Your task to perform on an android device: toggle location history Image 0: 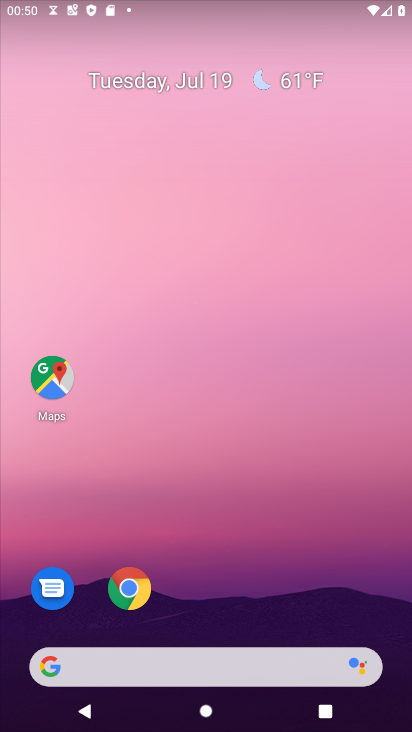
Step 0: press home button
Your task to perform on an android device: toggle location history Image 1: 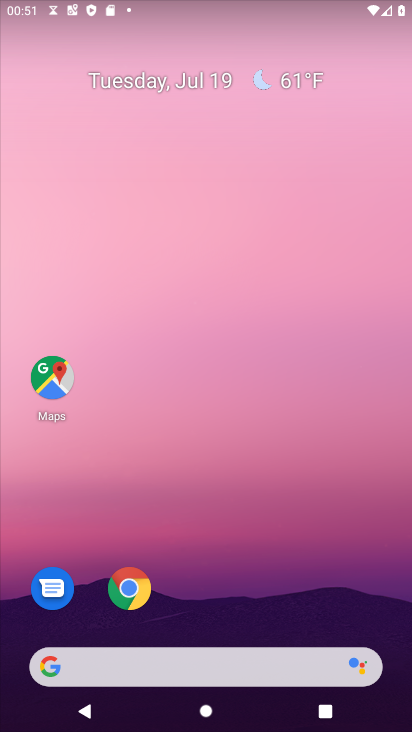
Step 1: drag from (254, 690) to (323, 204)
Your task to perform on an android device: toggle location history Image 2: 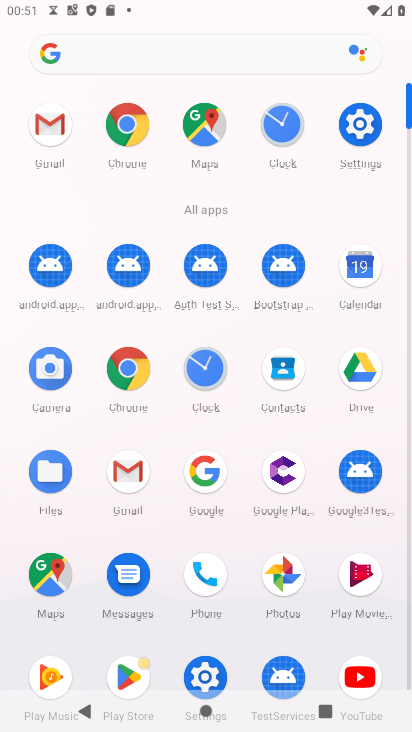
Step 2: click (355, 131)
Your task to perform on an android device: toggle location history Image 3: 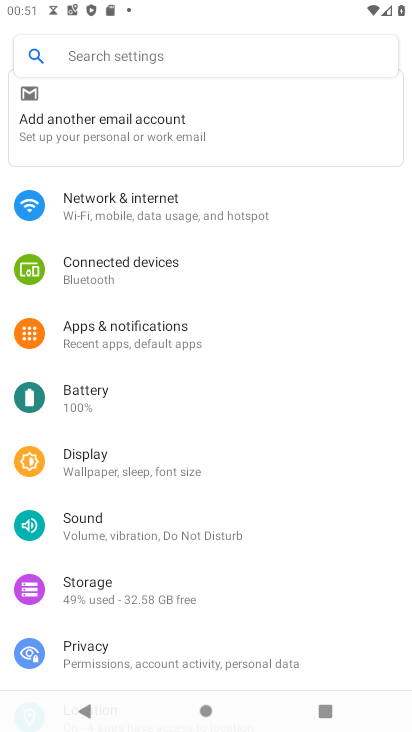
Step 3: drag from (115, 605) to (219, 438)
Your task to perform on an android device: toggle location history Image 4: 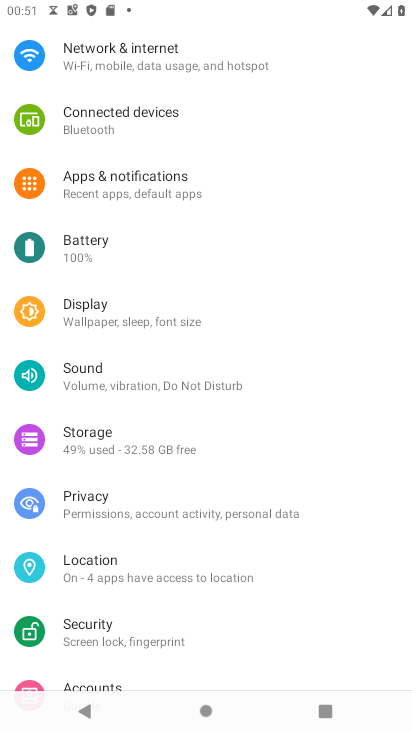
Step 4: click (130, 582)
Your task to perform on an android device: toggle location history Image 5: 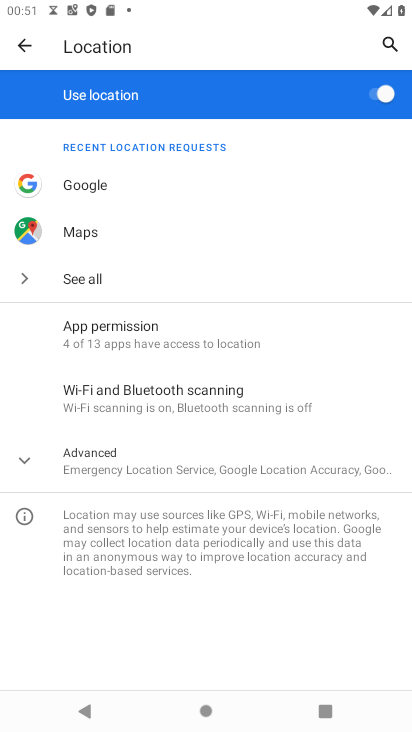
Step 5: click (29, 451)
Your task to perform on an android device: toggle location history Image 6: 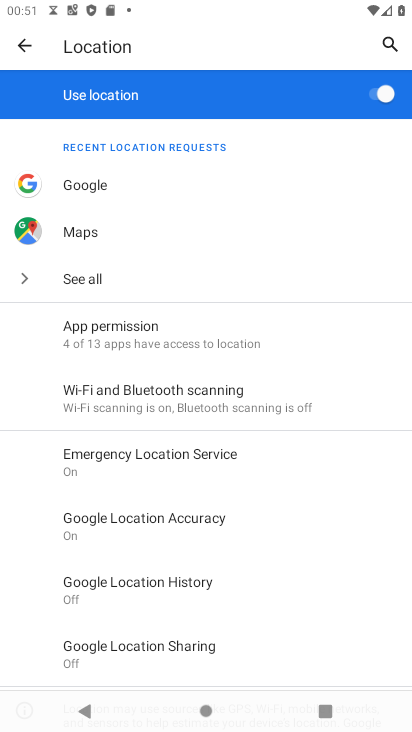
Step 6: click (158, 585)
Your task to perform on an android device: toggle location history Image 7: 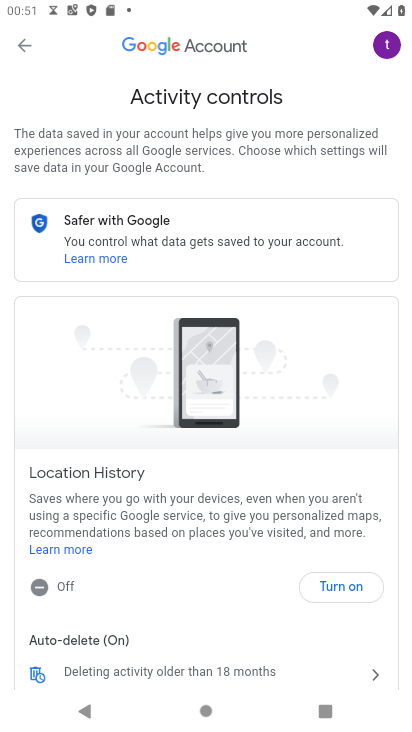
Step 7: task complete